Your task to perform on an android device: create a new album in the google photos Image 0: 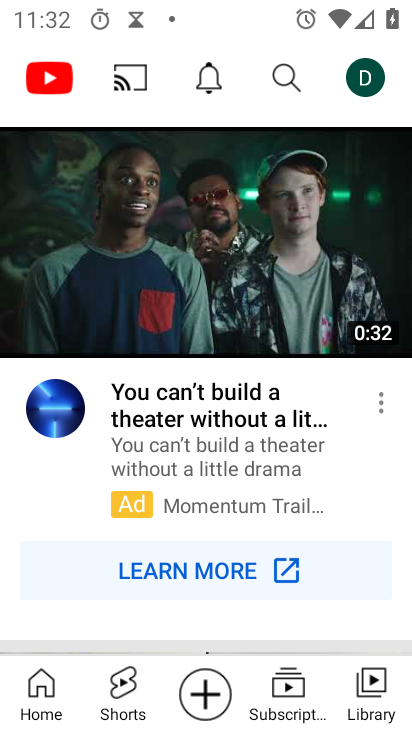
Step 0: press home button
Your task to perform on an android device: create a new album in the google photos Image 1: 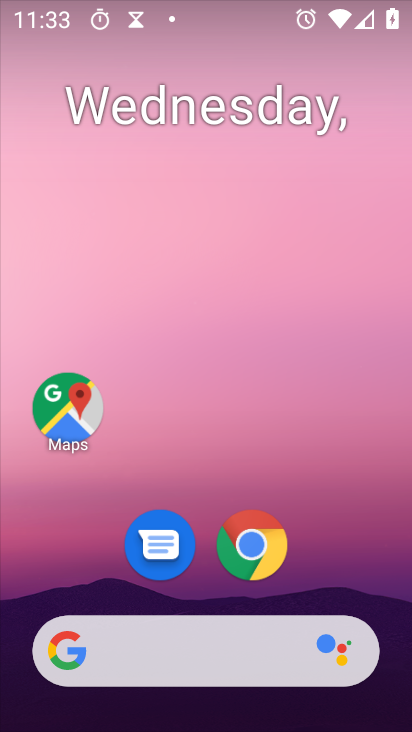
Step 1: drag from (188, 632) to (268, 158)
Your task to perform on an android device: create a new album in the google photos Image 2: 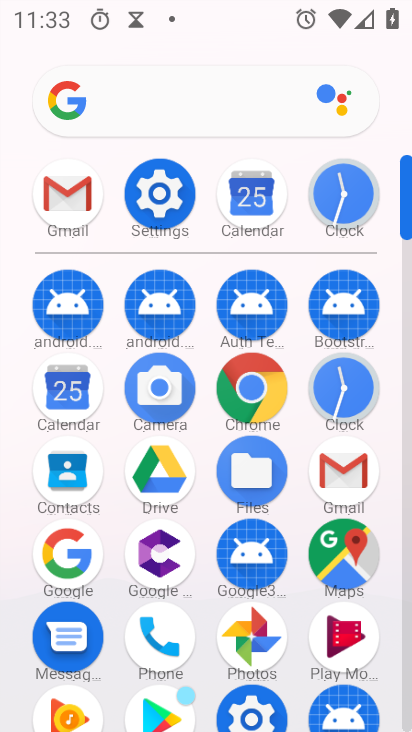
Step 2: drag from (210, 588) to (260, 336)
Your task to perform on an android device: create a new album in the google photos Image 3: 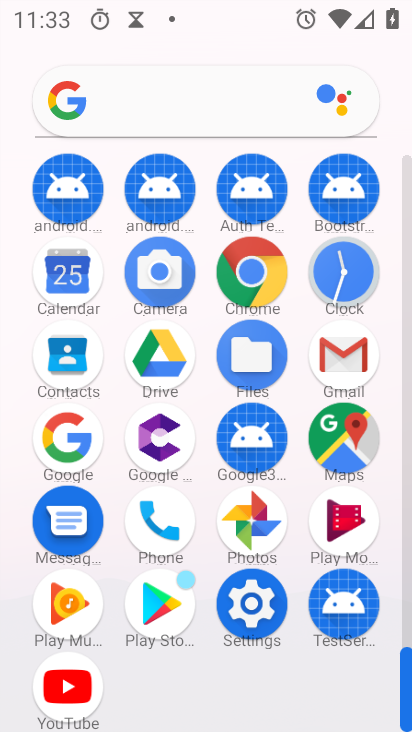
Step 3: click (237, 522)
Your task to perform on an android device: create a new album in the google photos Image 4: 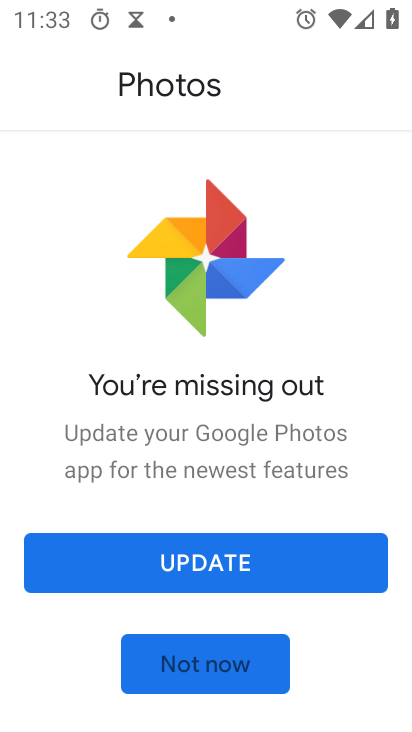
Step 4: click (217, 559)
Your task to perform on an android device: create a new album in the google photos Image 5: 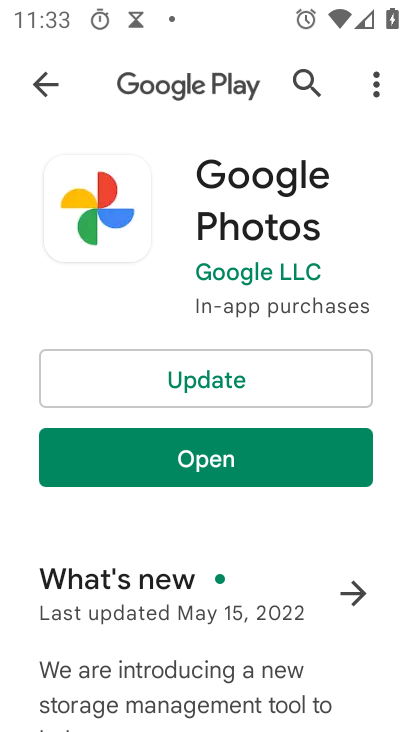
Step 5: click (223, 370)
Your task to perform on an android device: create a new album in the google photos Image 6: 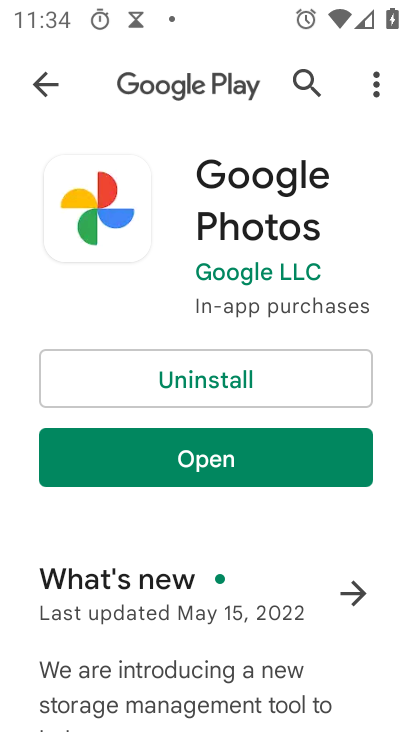
Step 6: click (229, 464)
Your task to perform on an android device: create a new album in the google photos Image 7: 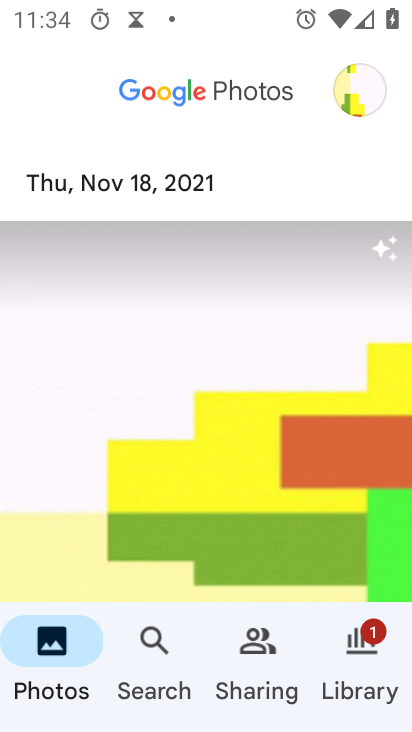
Step 7: click (354, 681)
Your task to perform on an android device: create a new album in the google photos Image 8: 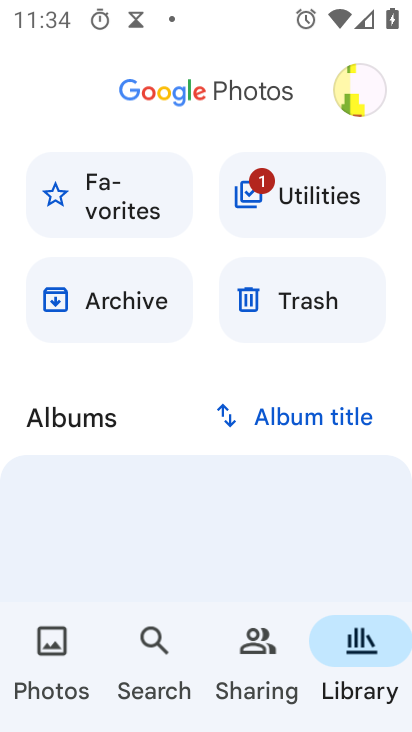
Step 8: drag from (205, 504) to (212, 192)
Your task to perform on an android device: create a new album in the google photos Image 9: 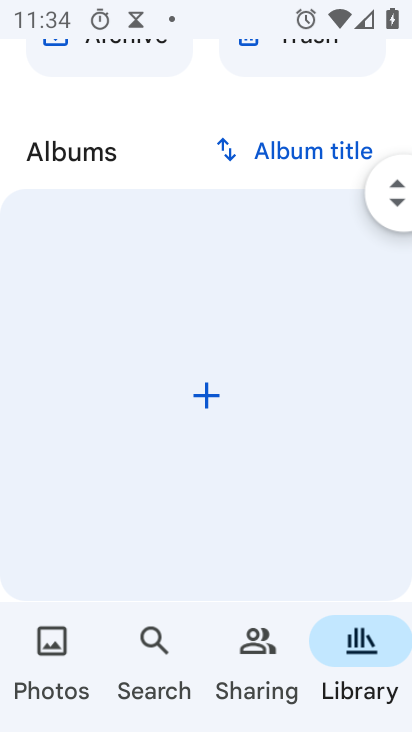
Step 9: click (216, 400)
Your task to perform on an android device: create a new album in the google photos Image 10: 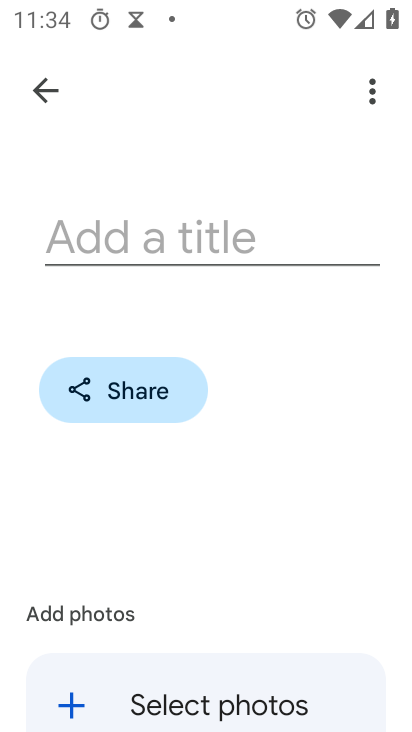
Step 10: drag from (215, 323) to (246, 160)
Your task to perform on an android device: create a new album in the google photos Image 11: 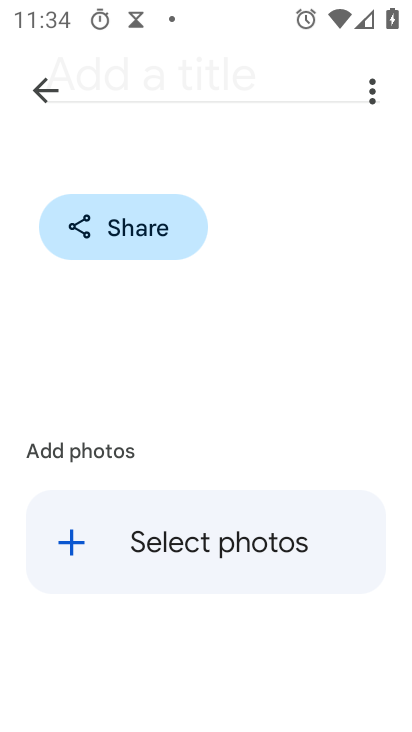
Step 11: click (225, 558)
Your task to perform on an android device: create a new album in the google photos Image 12: 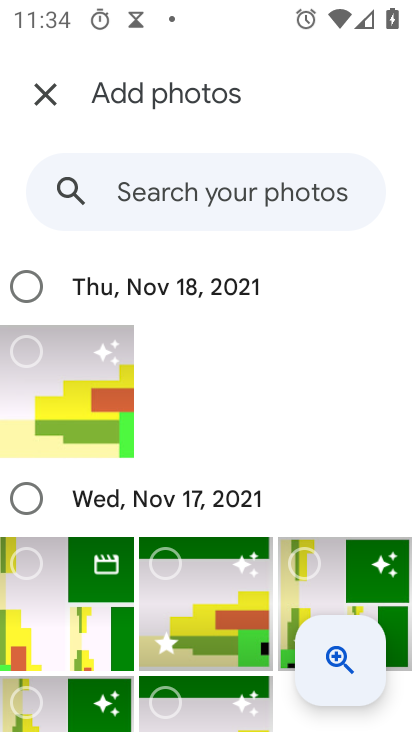
Step 12: click (52, 399)
Your task to perform on an android device: create a new album in the google photos Image 13: 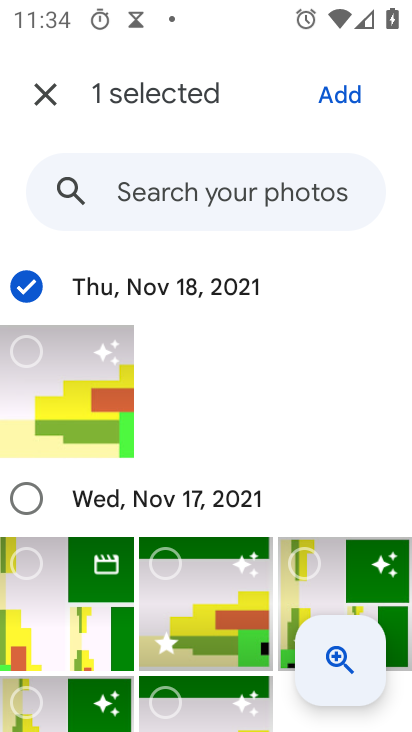
Step 13: click (70, 579)
Your task to perform on an android device: create a new album in the google photos Image 14: 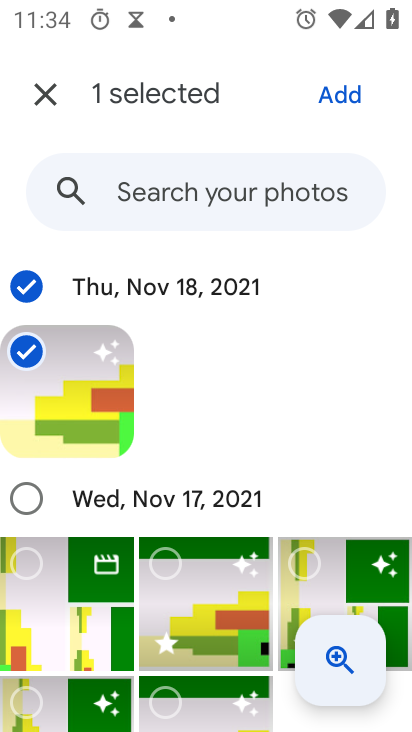
Step 14: click (197, 594)
Your task to perform on an android device: create a new album in the google photos Image 15: 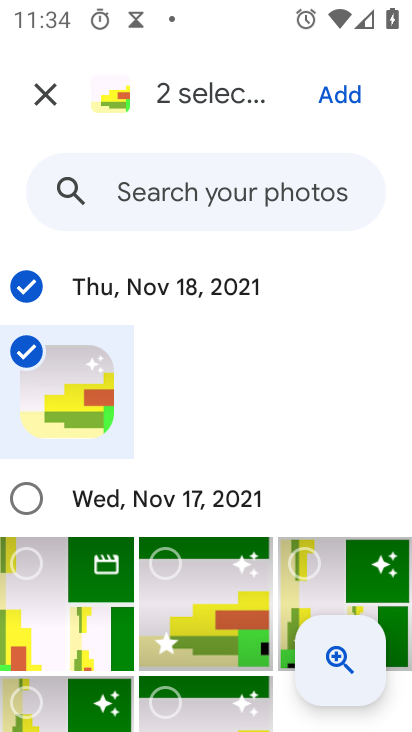
Step 15: click (315, 602)
Your task to perform on an android device: create a new album in the google photos Image 16: 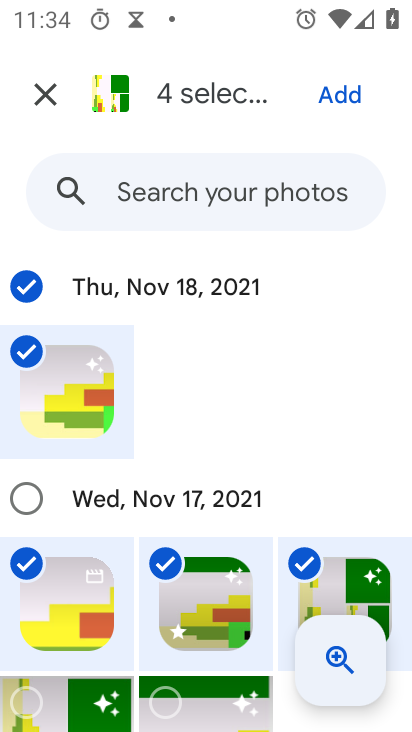
Step 16: click (344, 97)
Your task to perform on an android device: create a new album in the google photos Image 17: 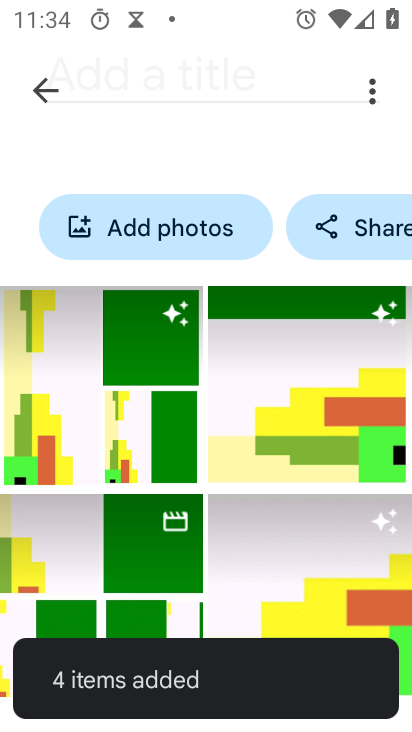
Step 17: task complete